Your task to perform on an android device: Open the map Image 0: 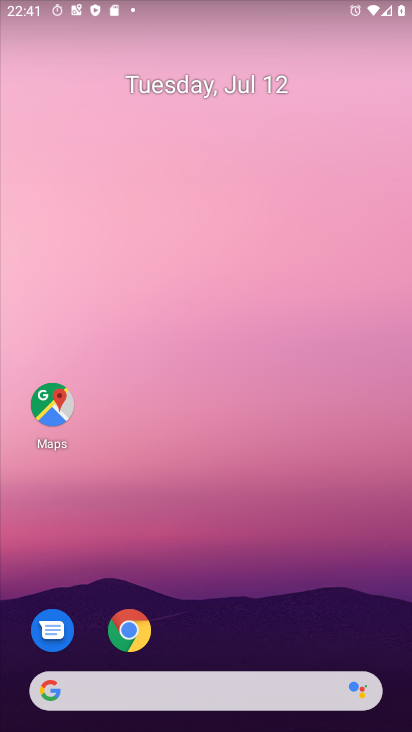
Step 0: click (63, 416)
Your task to perform on an android device: Open the map Image 1: 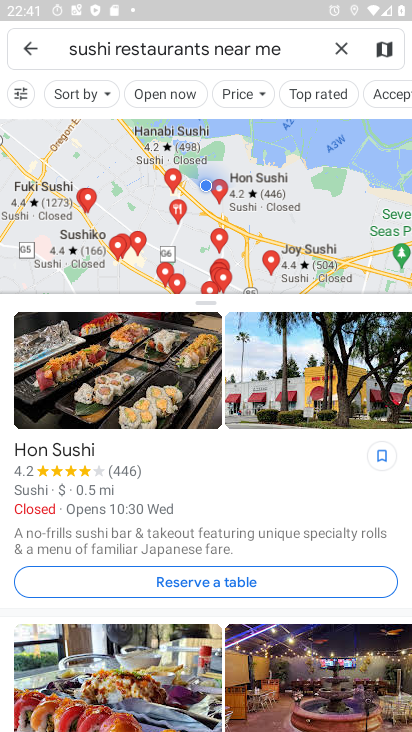
Step 1: task complete